Your task to perform on an android device: turn off location Image 0: 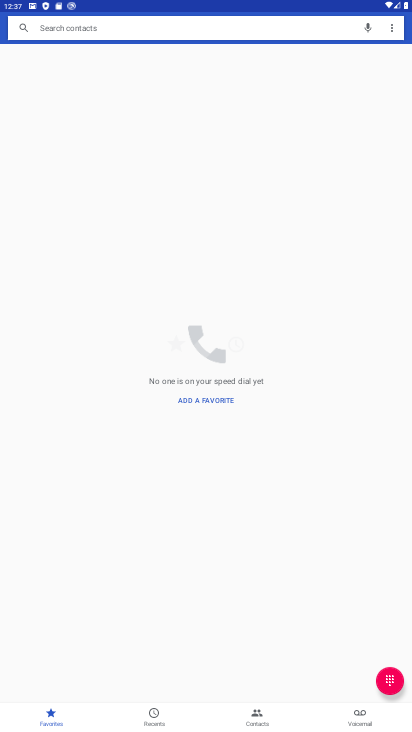
Step 0: press home button
Your task to perform on an android device: turn off location Image 1: 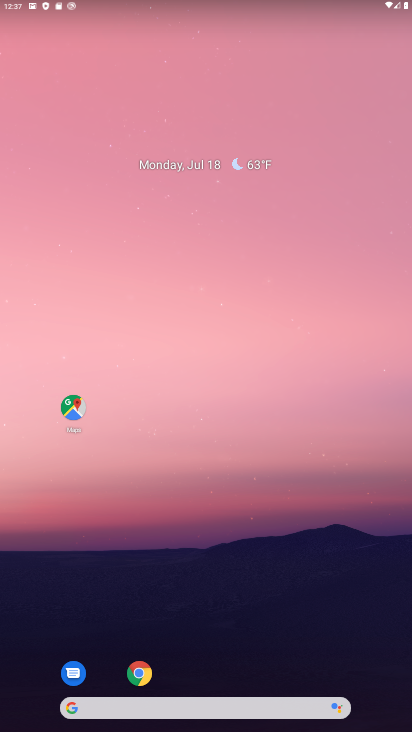
Step 1: drag from (208, 671) to (212, 221)
Your task to perform on an android device: turn off location Image 2: 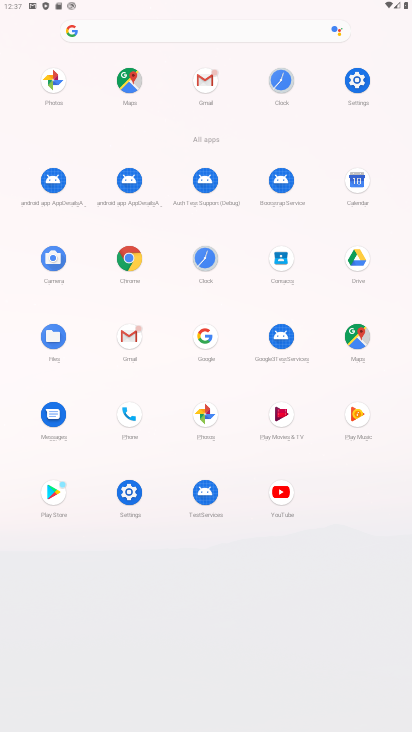
Step 2: click (352, 81)
Your task to perform on an android device: turn off location Image 3: 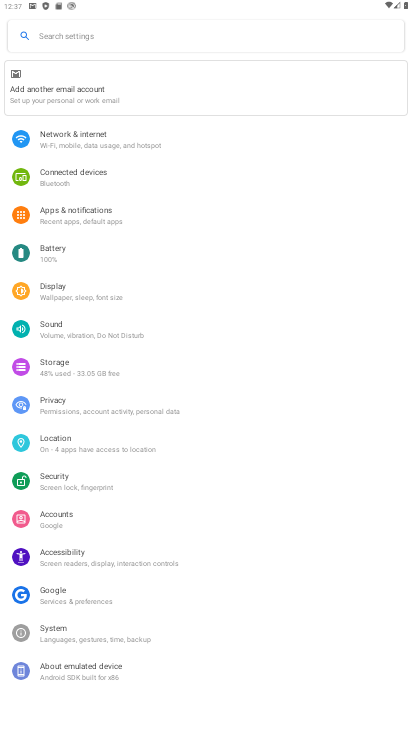
Step 3: click (118, 434)
Your task to perform on an android device: turn off location Image 4: 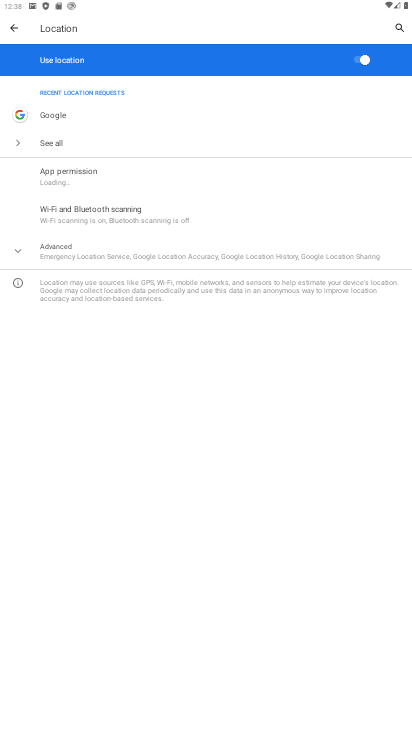
Step 4: click (112, 251)
Your task to perform on an android device: turn off location Image 5: 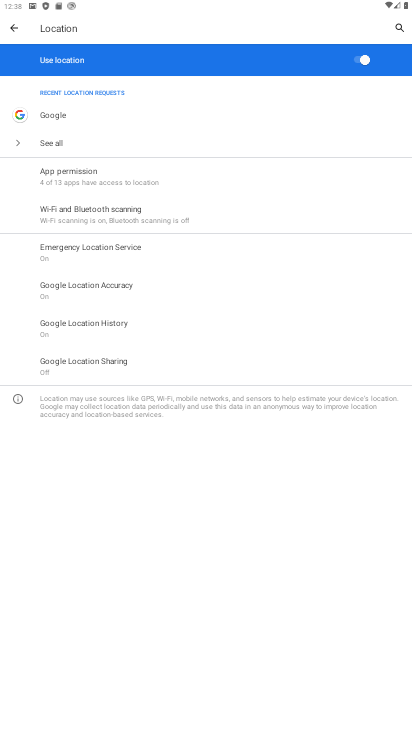
Step 5: click (356, 49)
Your task to perform on an android device: turn off location Image 6: 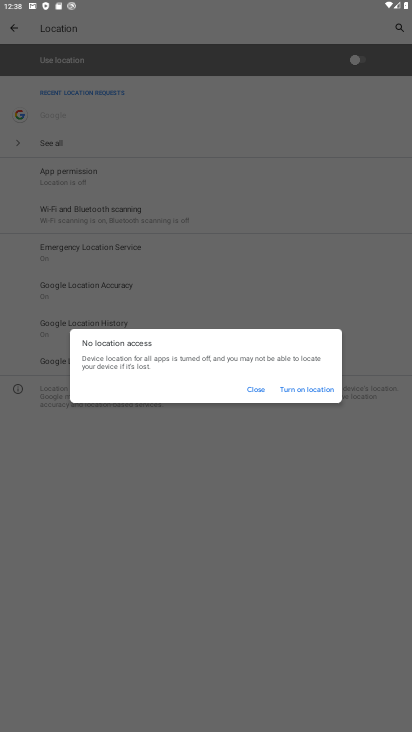
Step 6: click (242, 386)
Your task to perform on an android device: turn off location Image 7: 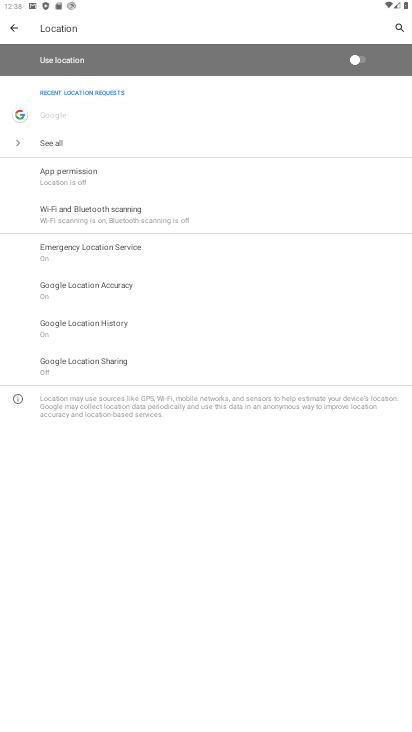
Step 7: task complete